Your task to perform on an android device: turn on notifications settings in the gmail app Image 0: 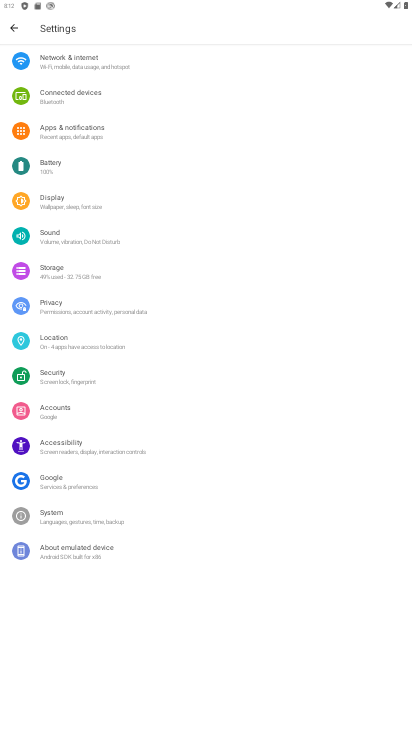
Step 0: press home button
Your task to perform on an android device: turn on notifications settings in the gmail app Image 1: 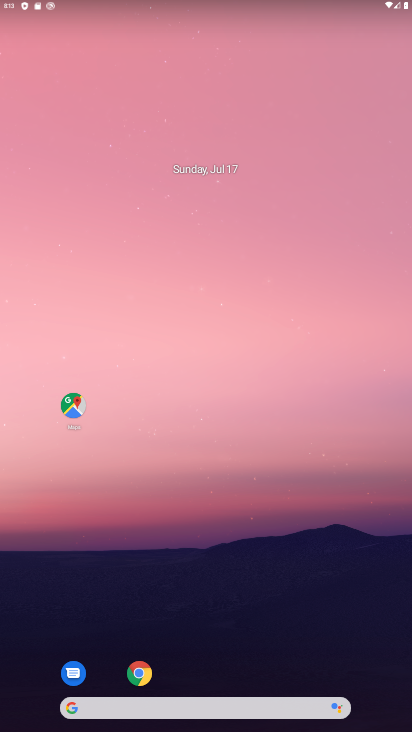
Step 1: drag from (192, 628) to (167, 20)
Your task to perform on an android device: turn on notifications settings in the gmail app Image 2: 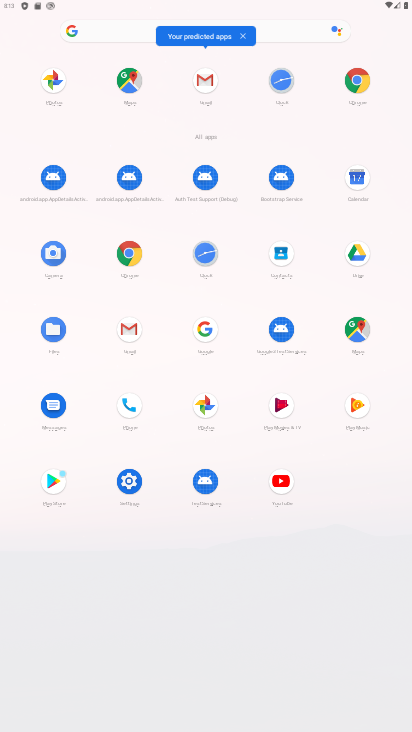
Step 2: click (201, 74)
Your task to perform on an android device: turn on notifications settings in the gmail app Image 3: 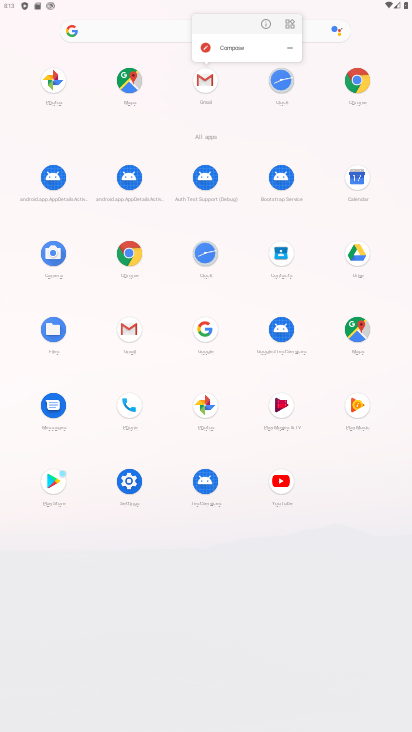
Step 3: click (263, 21)
Your task to perform on an android device: turn on notifications settings in the gmail app Image 4: 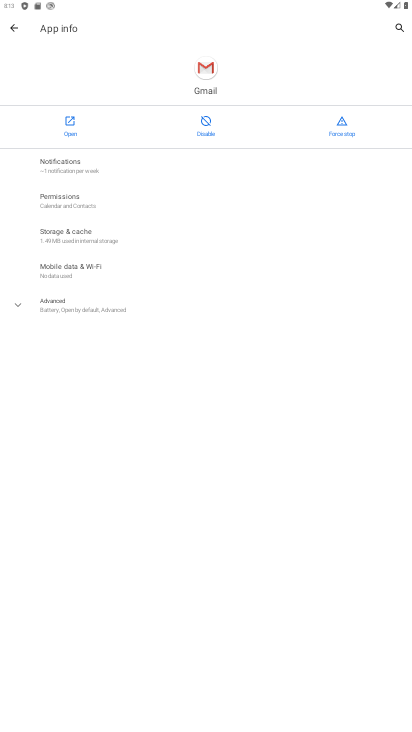
Step 4: click (84, 168)
Your task to perform on an android device: turn on notifications settings in the gmail app Image 5: 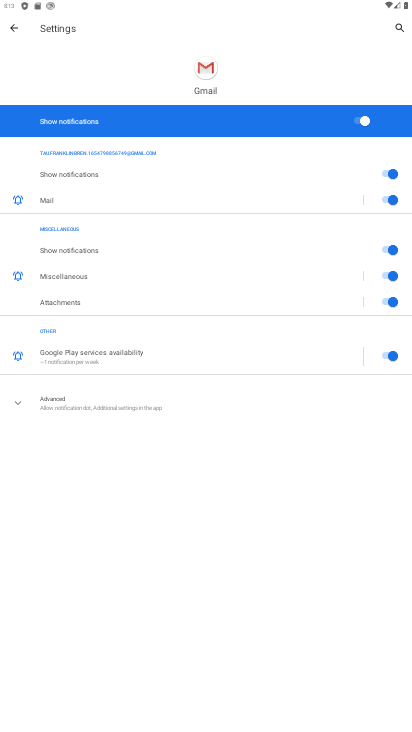
Step 5: task complete